Your task to perform on an android device: Open notification settings Image 0: 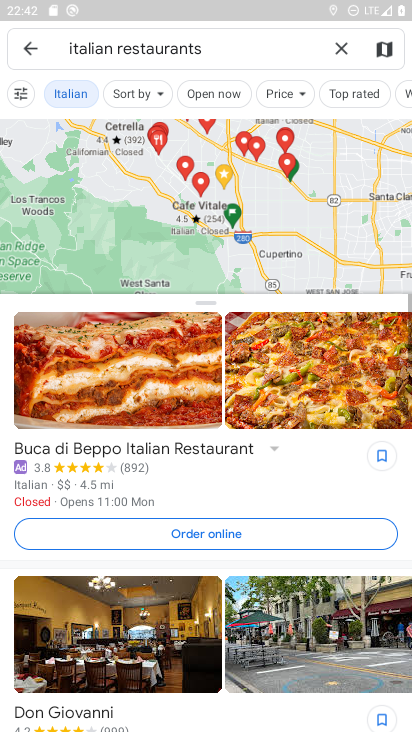
Step 0: press home button
Your task to perform on an android device: Open notification settings Image 1: 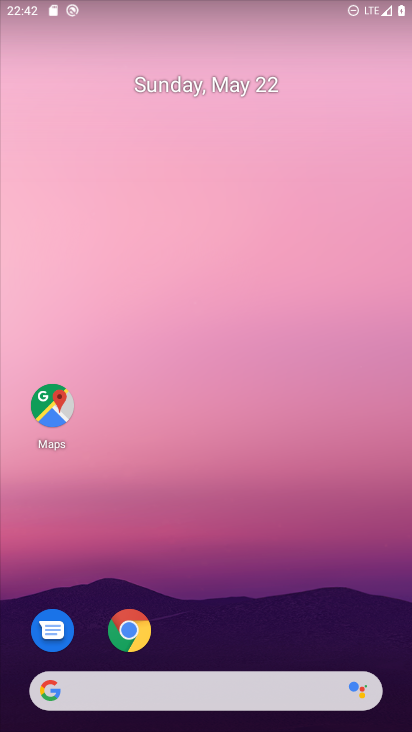
Step 1: drag from (191, 685) to (351, 12)
Your task to perform on an android device: Open notification settings Image 2: 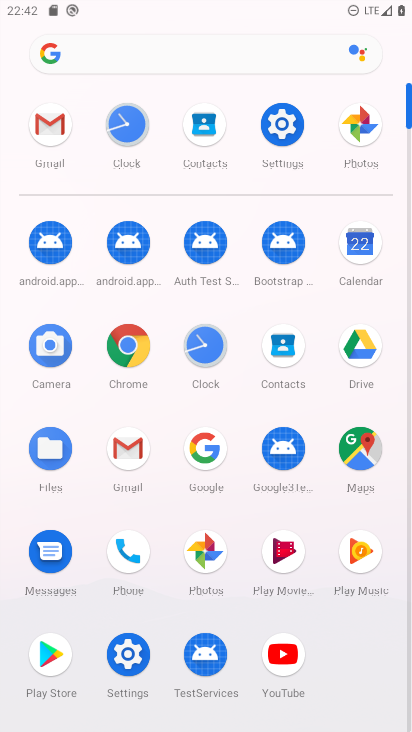
Step 2: click (284, 126)
Your task to perform on an android device: Open notification settings Image 3: 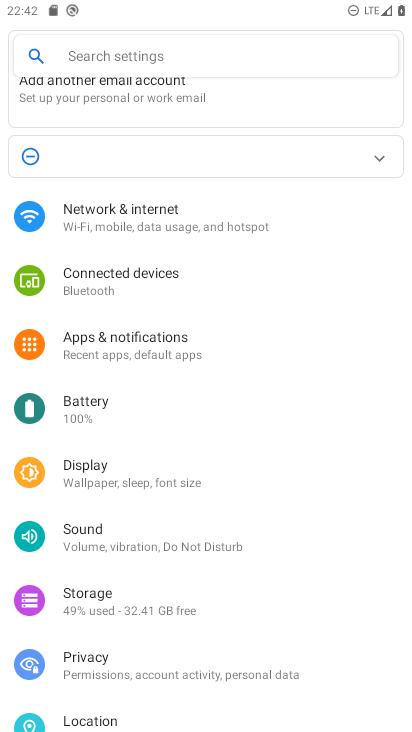
Step 3: click (173, 350)
Your task to perform on an android device: Open notification settings Image 4: 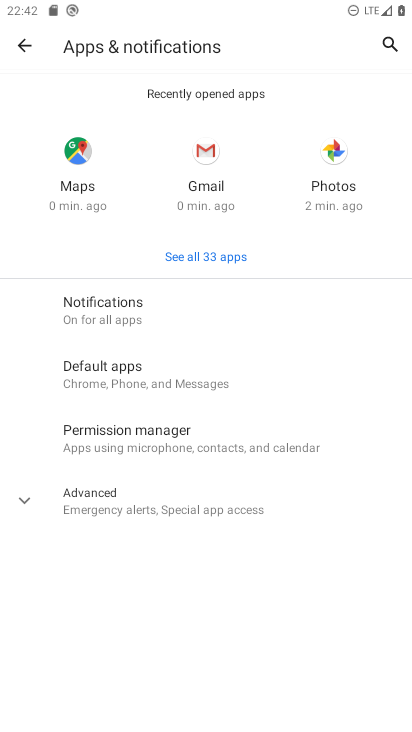
Step 4: click (110, 316)
Your task to perform on an android device: Open notification settings Image 5: 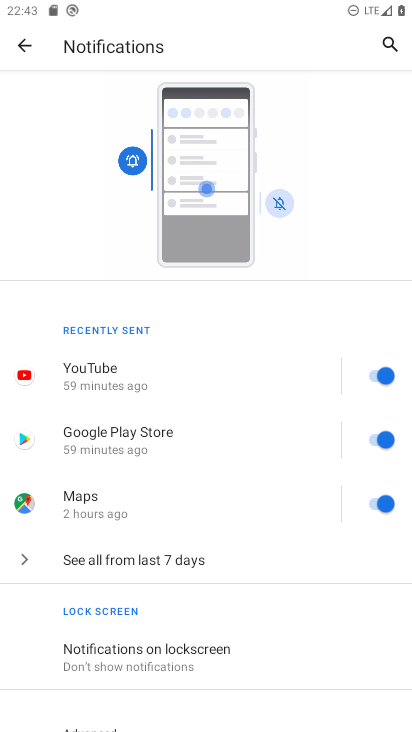
Step 5: task complete